Your task to perform on an android device: Open Reddit.com Image 0: 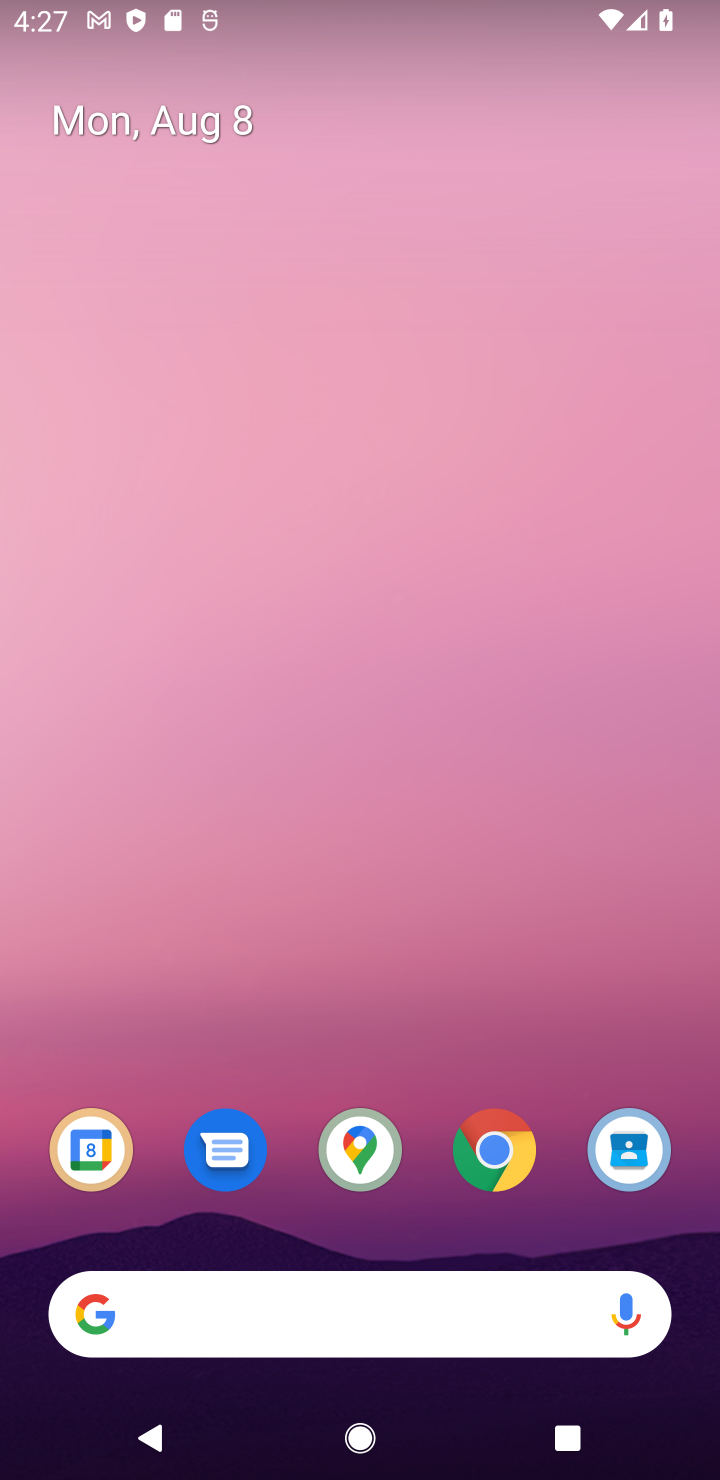
Step 0: click (509, 1124)
Your task to perform on an android device: Open Reddit.com Image 1: 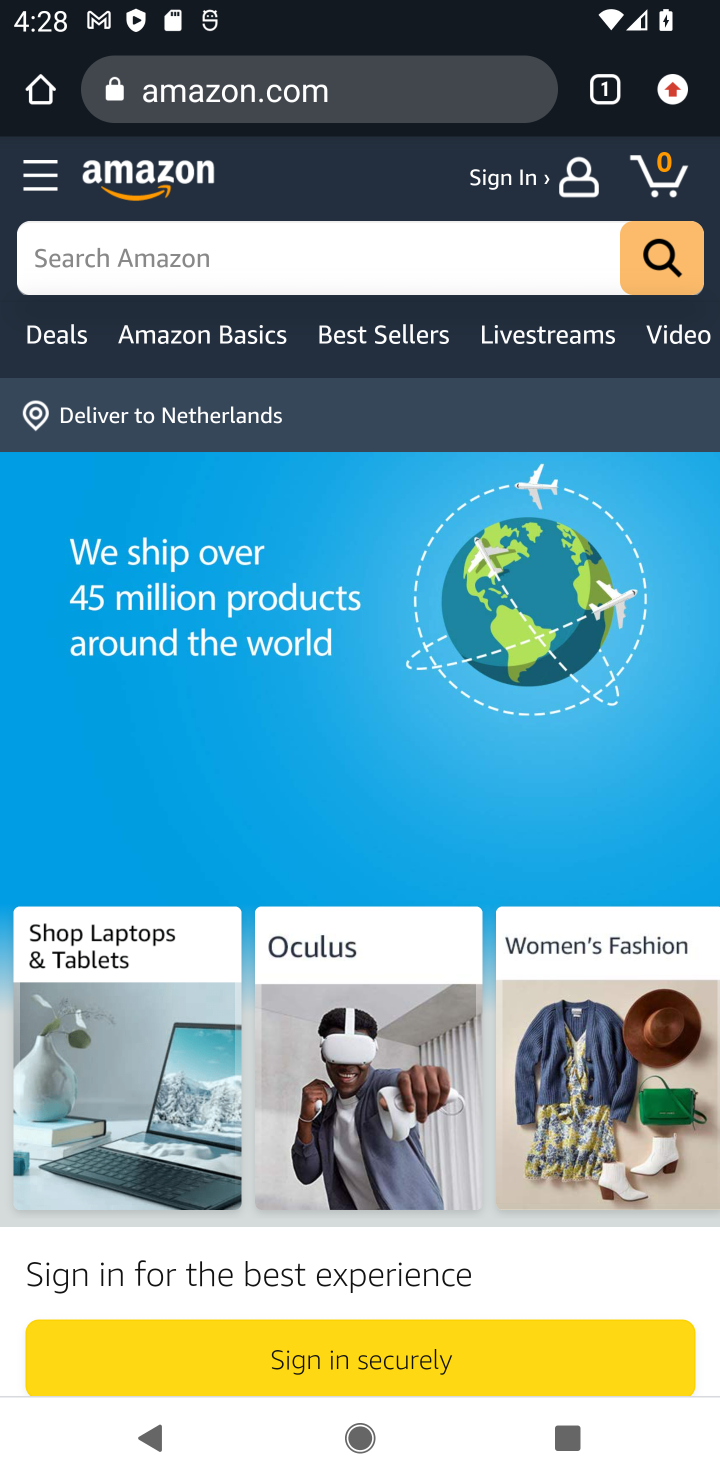
Step 1: click (353, 115)
Your task to perform on an android device: Open Reddit.com Image 2: 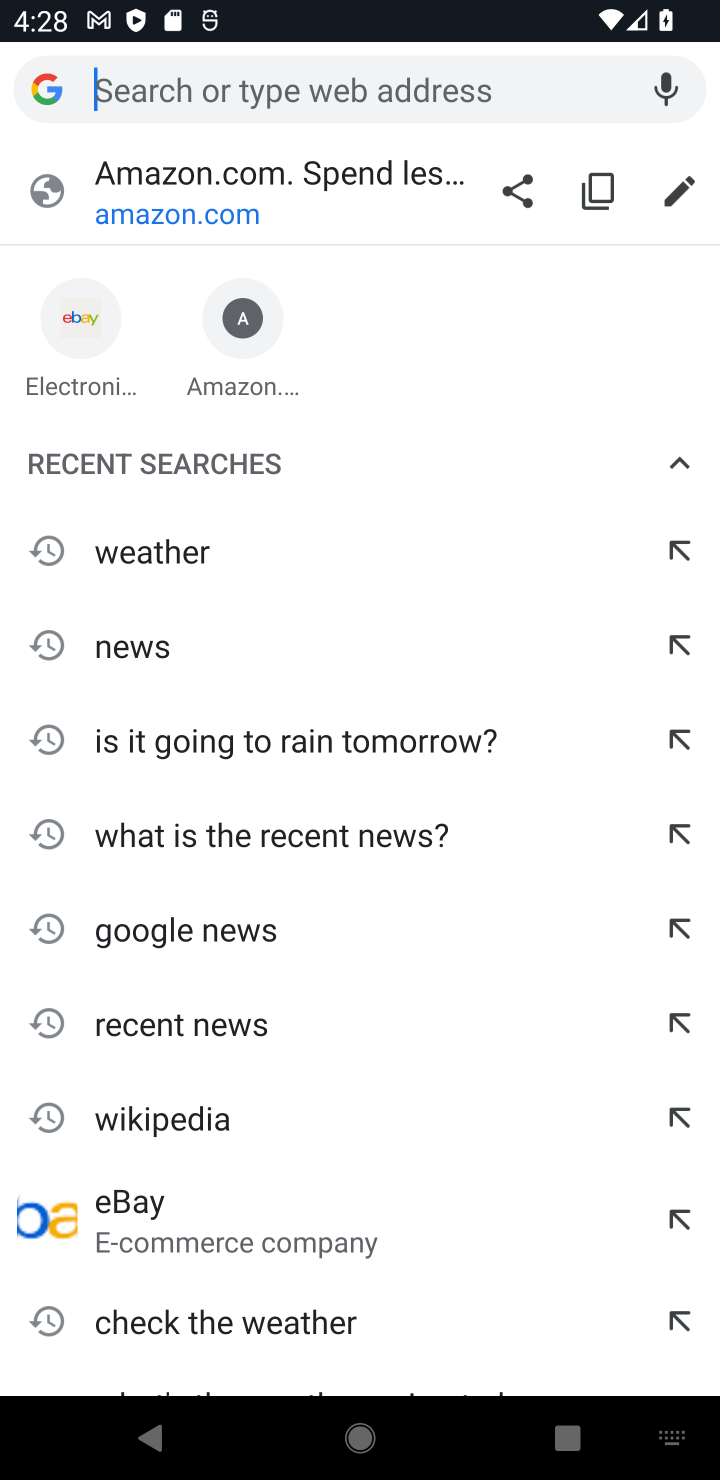
Step 2: type "reddit"
Your task to perform on an android device: Open Reddit.com Image 3: 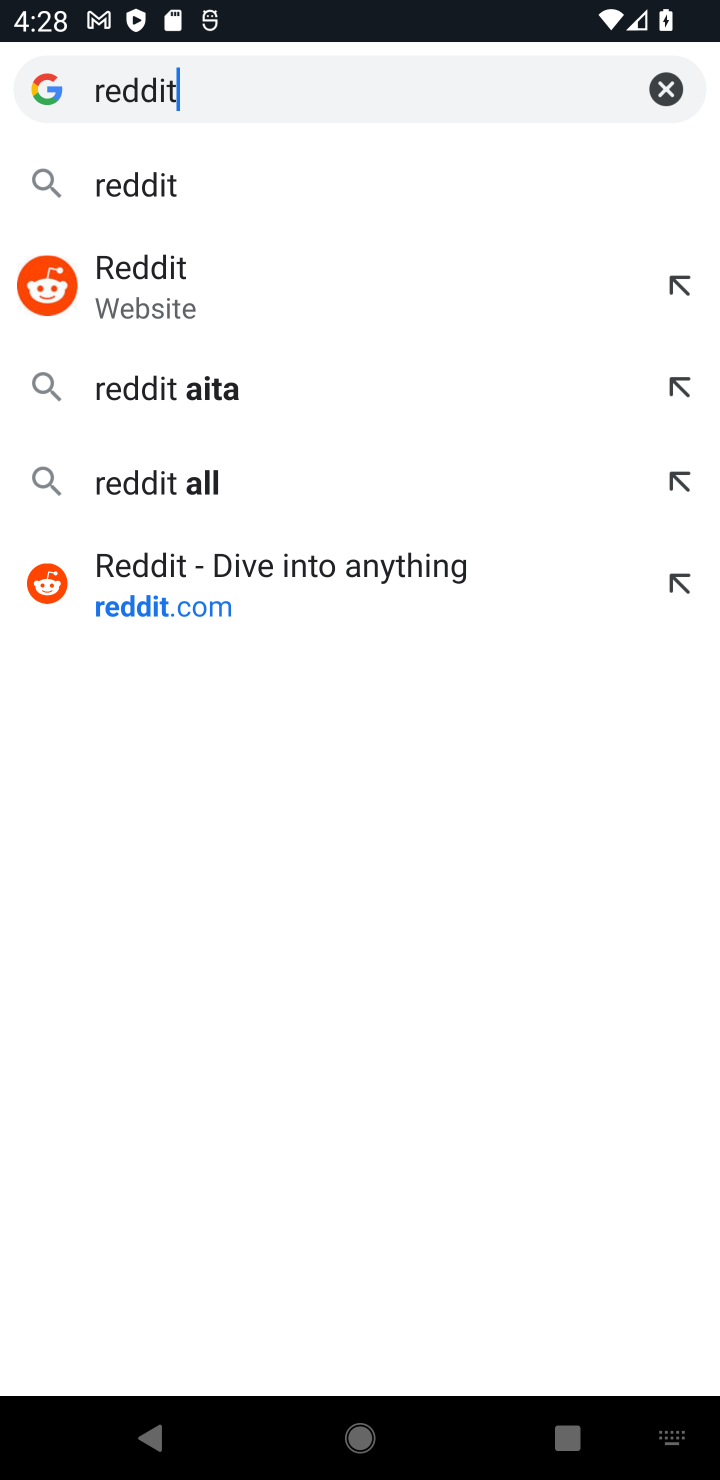
Step 3: click (168, 266)
Your task to perform on an android device: Open Reddit.com Image 4: 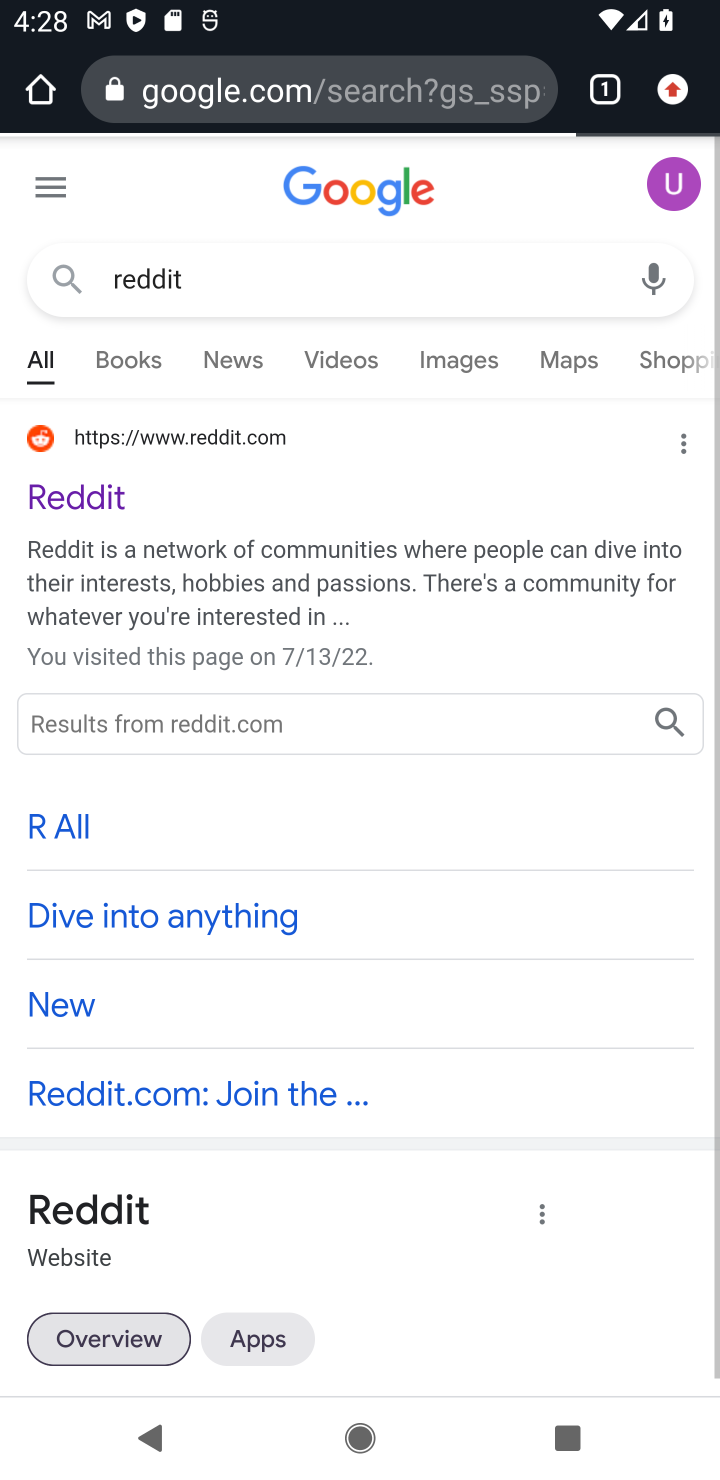
Step 4: task complete